Your task to perform on an android device: empty trash in google photos Image 0: 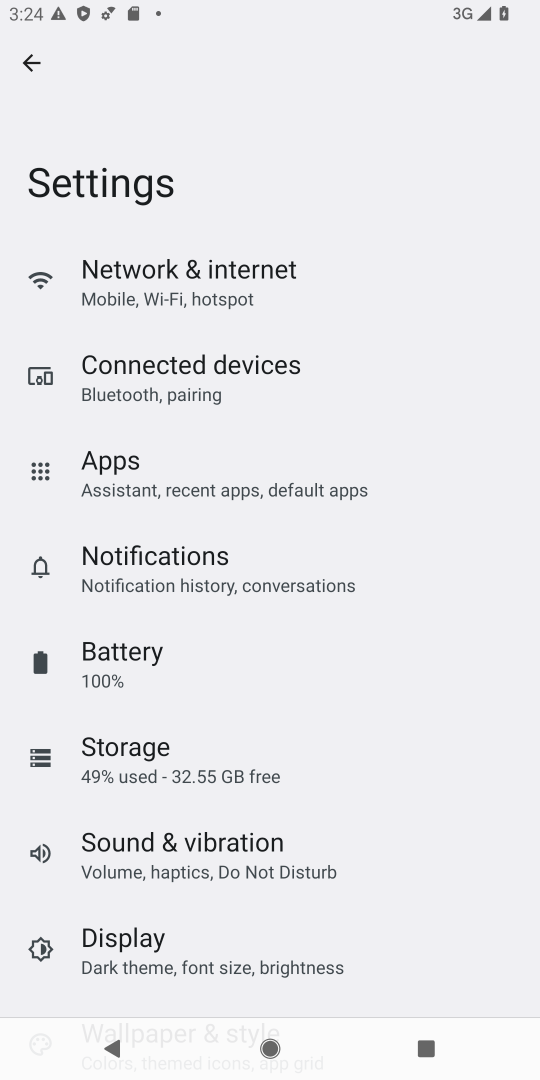
Step 0: press home button
Your task to perform on an android device: empty trash in google photos Image 1: 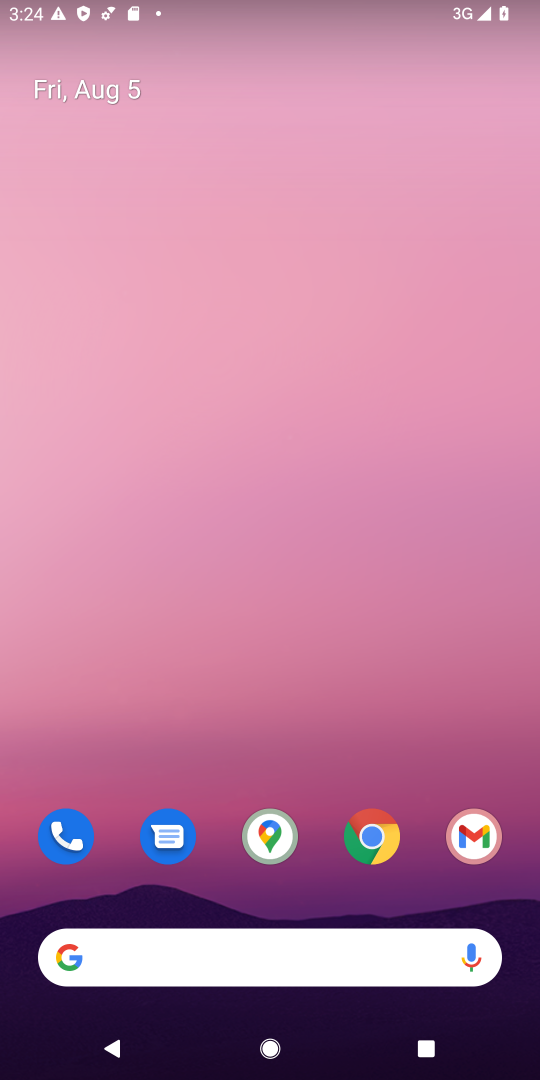
Step 1: drag from (275, 878) to (333, 125)
Your task to perform on an android device: empty trash in google photos Image 2: 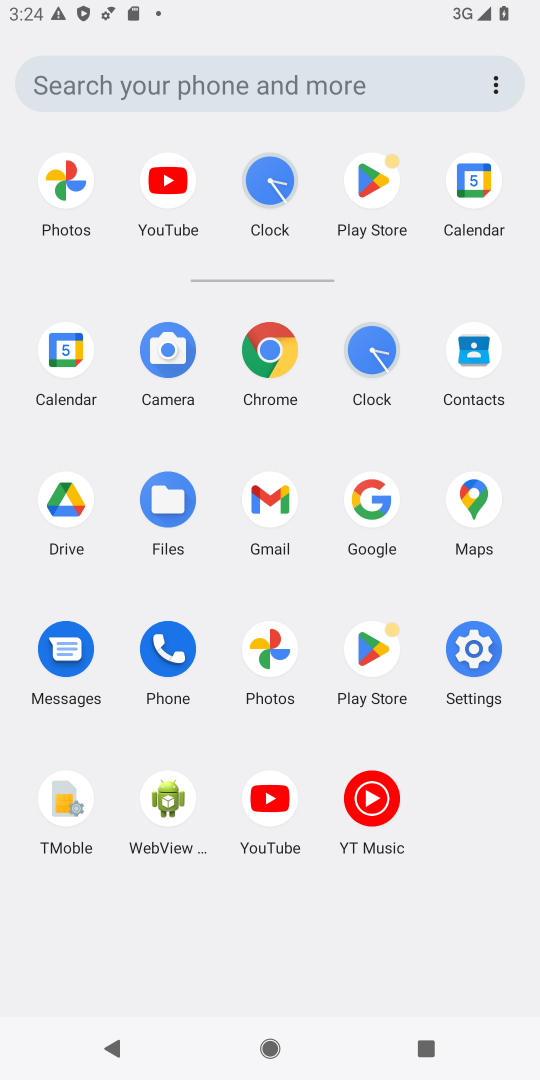
Step 2: click (282, 647)
Your task to perform on an android device: empty trash in google photos Image 3: 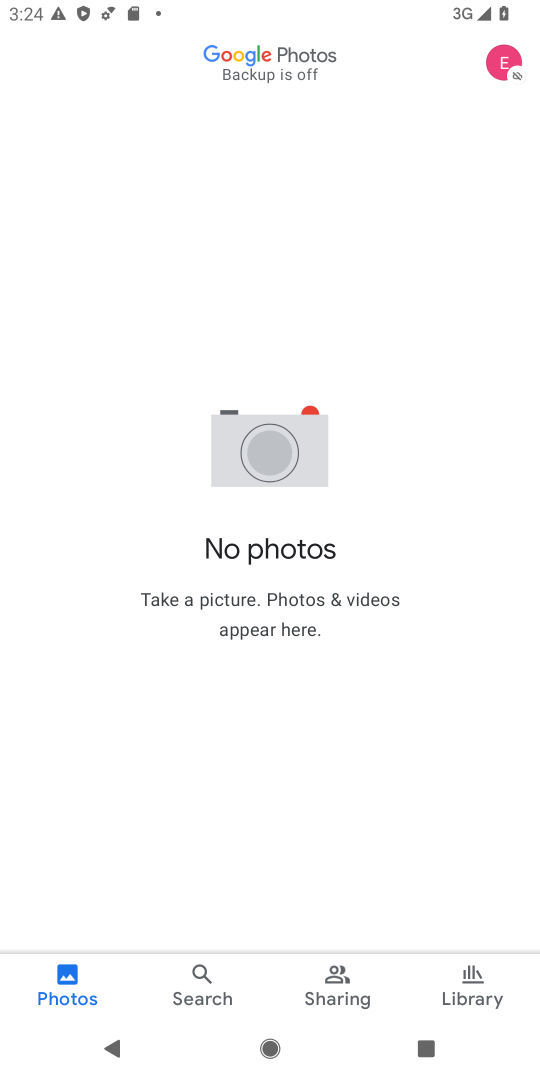
Step 3: click (521, 62)
Your task to perform on an android device: empty trash in google photos Image 4: 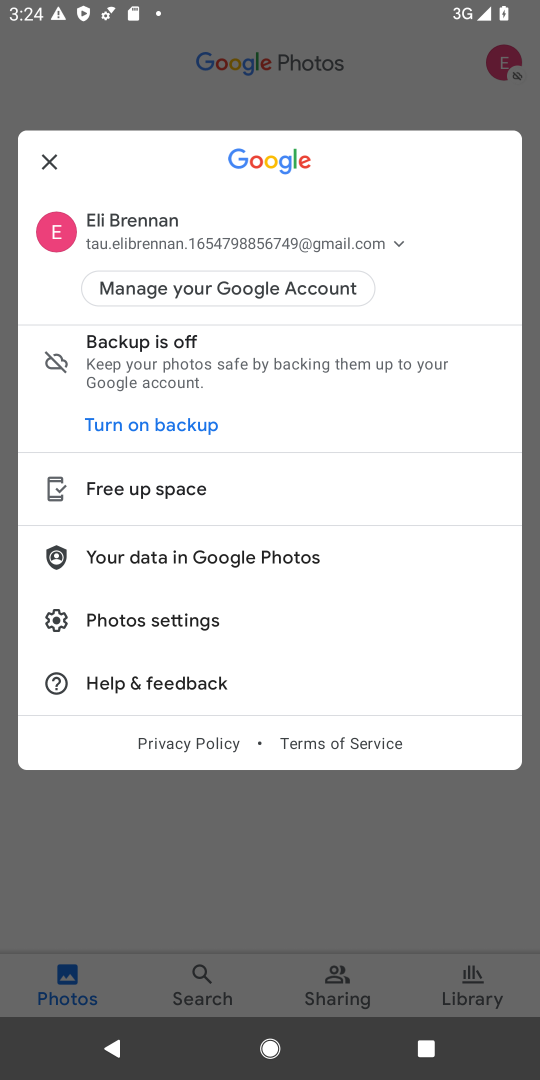
Step 4: task complete